Your task to perform on an android device: turn off wifi Image 0: 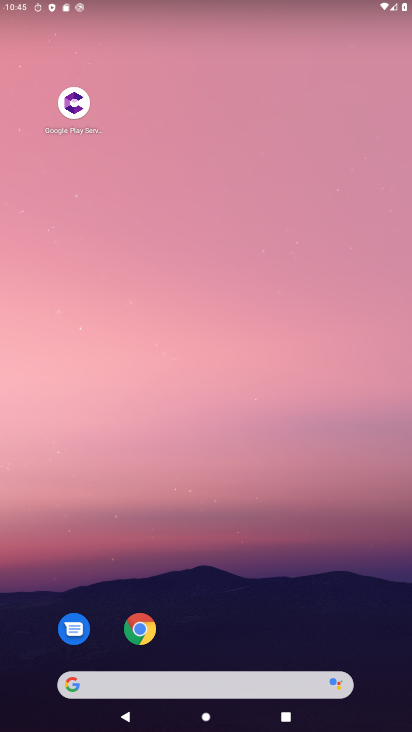
Step 0: drag from (258, 589) to (276, 94)
Your task to perform on an android device: turn off wifi Image 1: 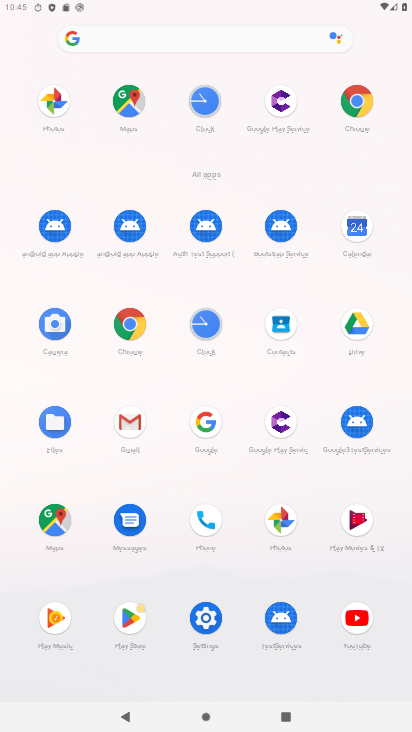
Step 1: drag from (286, 279) to (286, 105)
Your task to perform on an android device: turn off wifi Image 2: 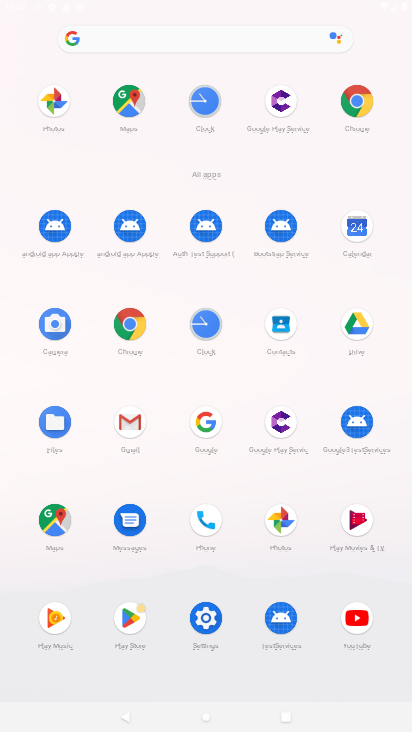
Step 2: click (201, 618)
Your task to perform on an android device: turn off wifi Image 3: 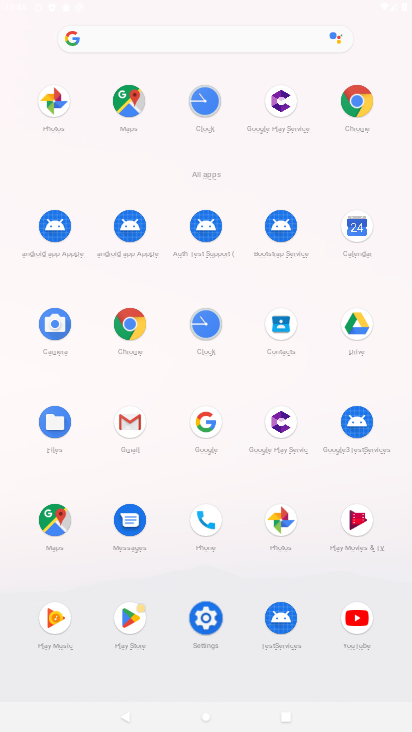
Step 3: click (200, 621)
Your task to perform on an android device: turn off wifi Image 4: 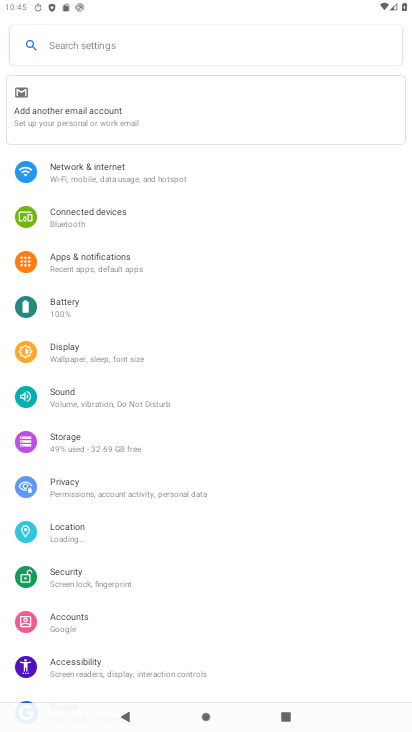
Step 4: click (107, 97)
Your task to perform on an android device: turn off wifi Image 5: 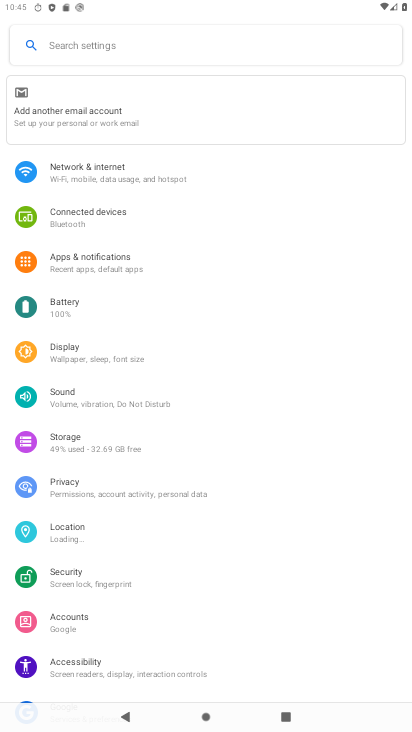
Step 5: click (125, 169)
Your task to perform on an android device: turn off wifi Image 6: 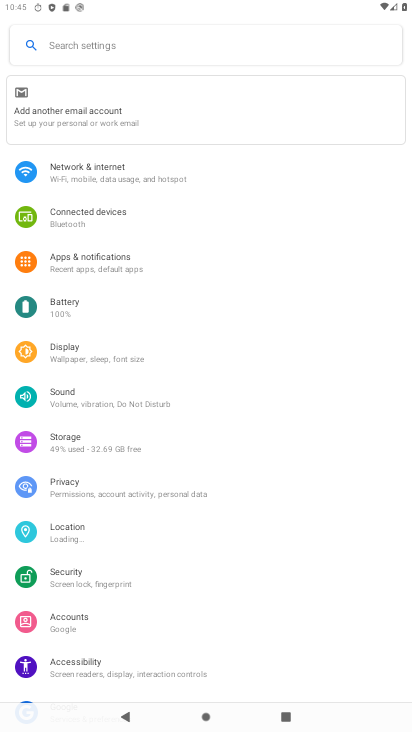
Step 6: click (121, 167)
Your task to perform on an android device: turn off wifi Image 7: 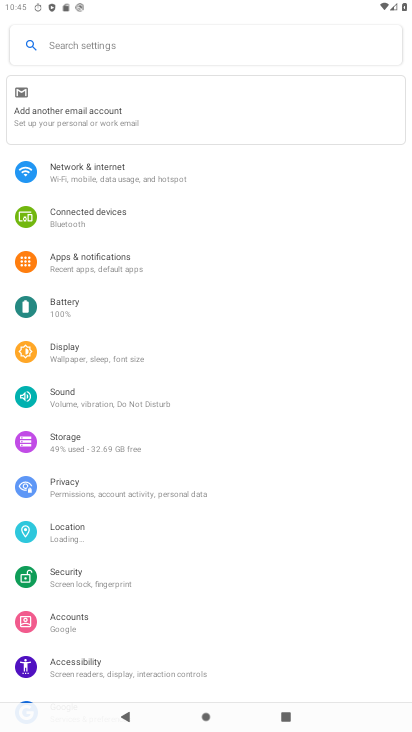
Step 7: click (125, 174)
Your task to perform on an android device: turn off wifi Image 8: 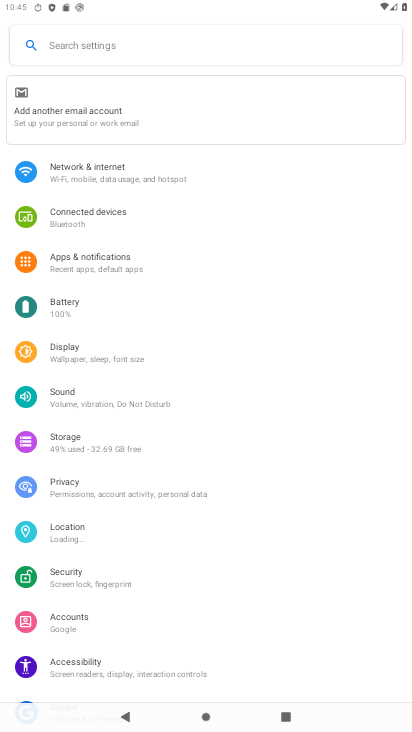
Step 8: click (113, 175)
Your task to perform on an android device: turn off wifi Image 9: 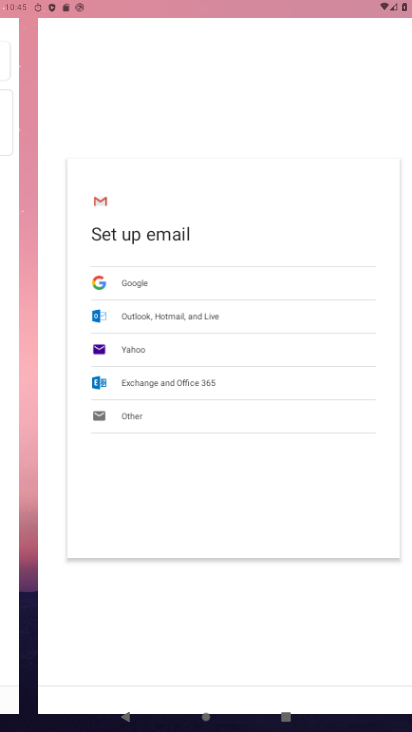
Step 9: click (115, 175)
Your task to perform on an android device: turn off wifi Image 10: 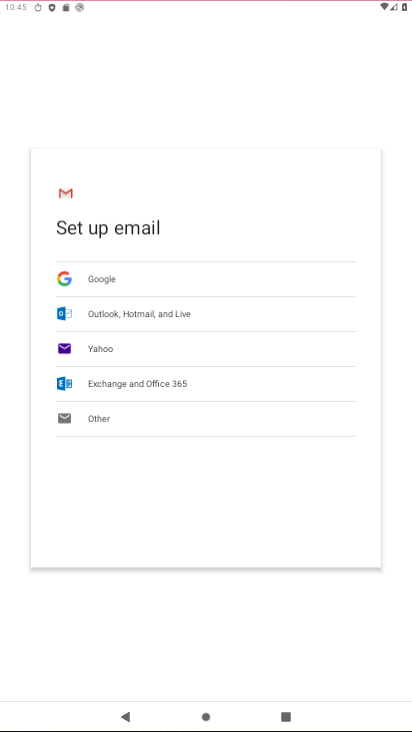
Step 10: click (110, 173)
Your task to perform on an android device: turn off wifi Image 11: 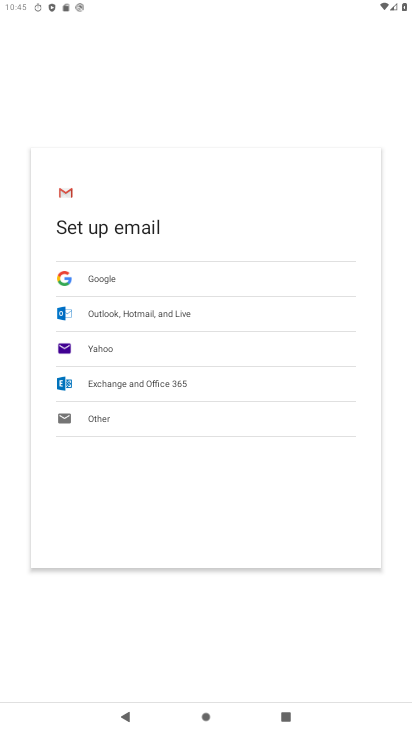
Step 11: click (107, 170)
Your task to perform on an android device: turn off wifi Image 12: 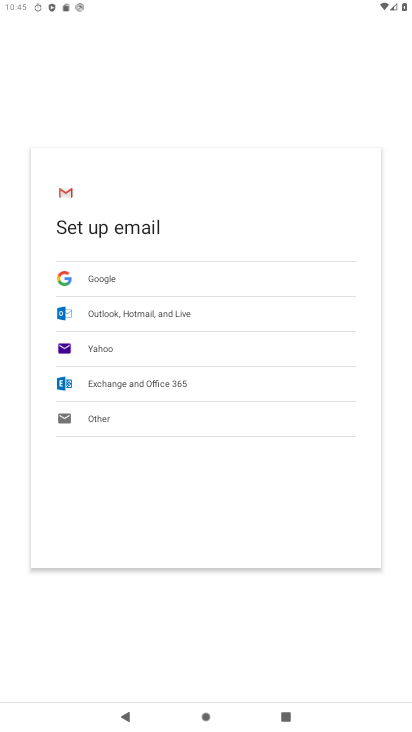
Step 12: press back button
Your task to perform on an android device: turn off wifi Image 13: 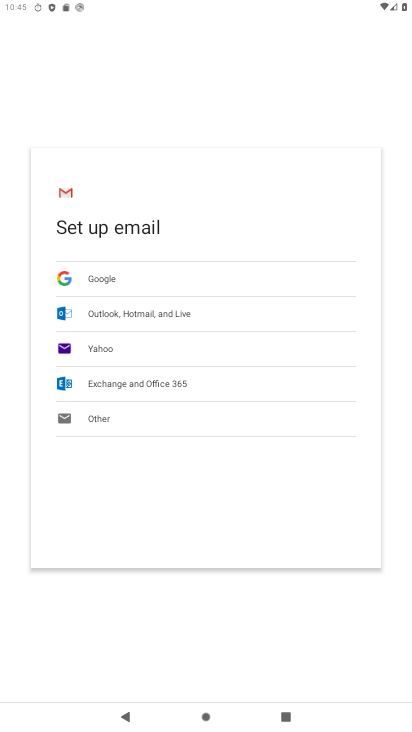
Step 13: press back button
Your task to perform on an android device: turn off wifi Image 14: 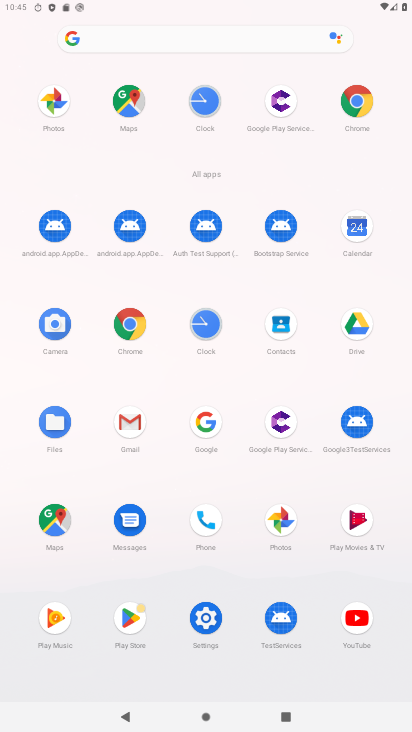
Step 14: click (203, 616)
Your task to perform on an android device: turn off wifi Image 15: 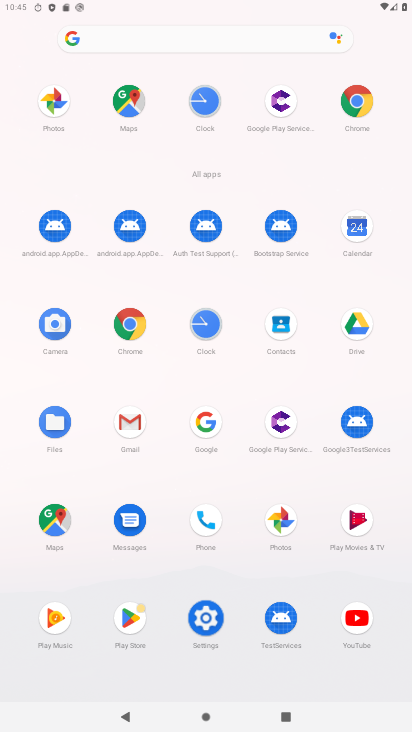
Step 15: click (196, 615)
Your task to perform on an android device: turn off wifi Image 16: 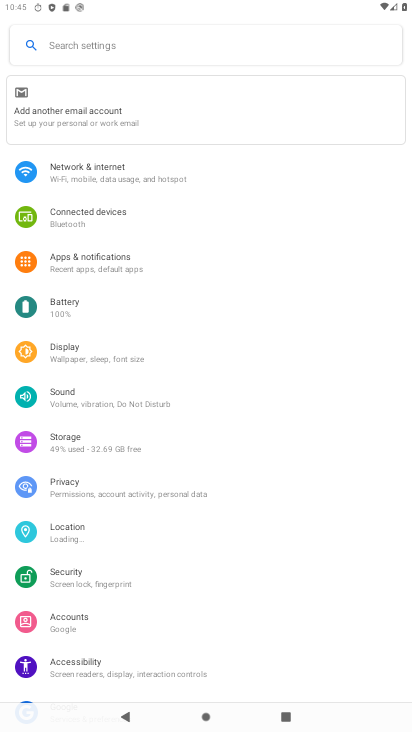
Step 16: click (96, 177)
Your task to perform on an android device: turn off wifi Image 17: 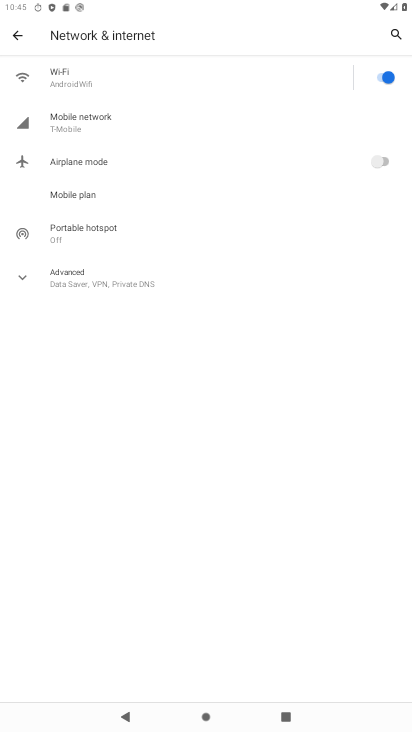
Step 17: click (384, 74)
Your task to perform on an android device: turn off wifi Image 18: 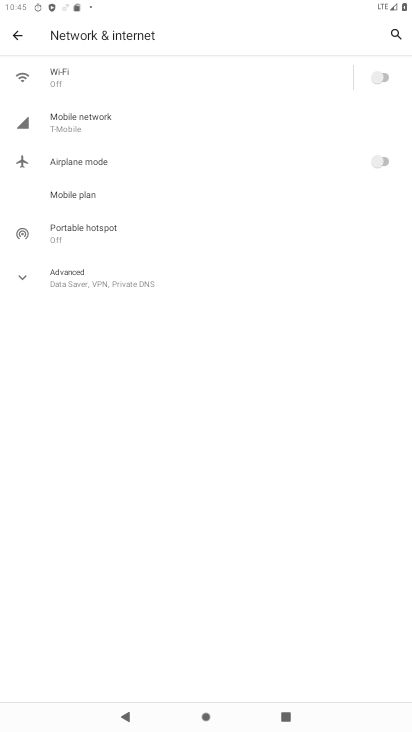
Step 18: task complete